Your task to perform on an android device: change the clock display to digital Image 0: 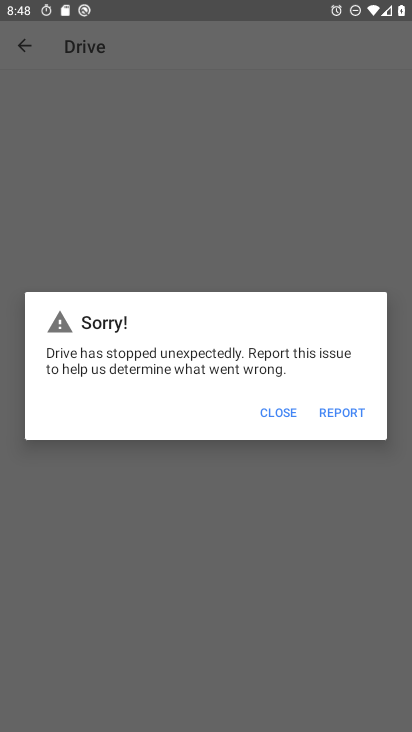
Step 0: press home button
Your task to perform on an android device: change the clock display to digital Image 1: 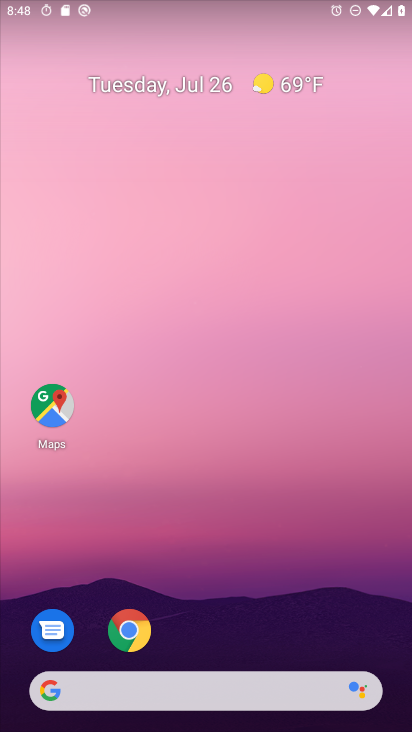
Step 1: drag from (287, 624) to (279, 192)
Your task to perform on an android device: change the clock display to digital Image 2: 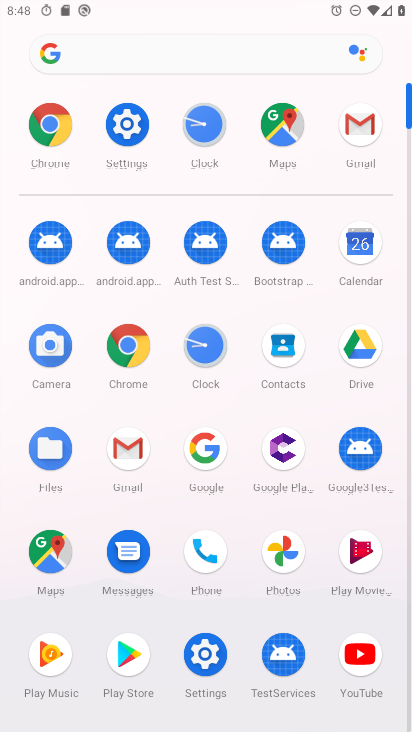
Step 2: click (219, 363)
Your task to perform on an android device: change the clock display to digital Image 3: 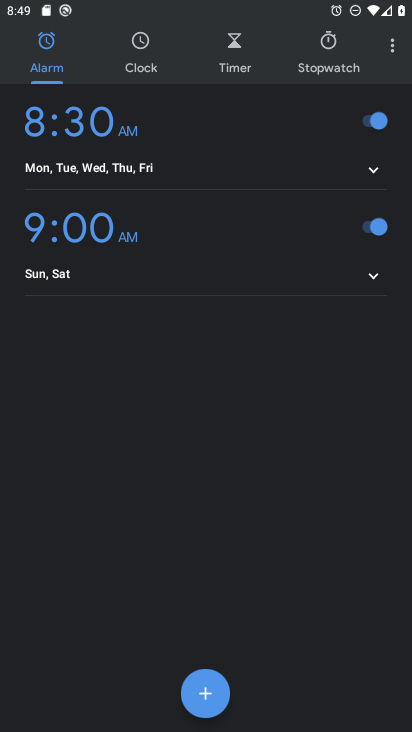
Step 3: click (391, 47)
Your task to perform on an android device: change the clock display to digital Image 4: 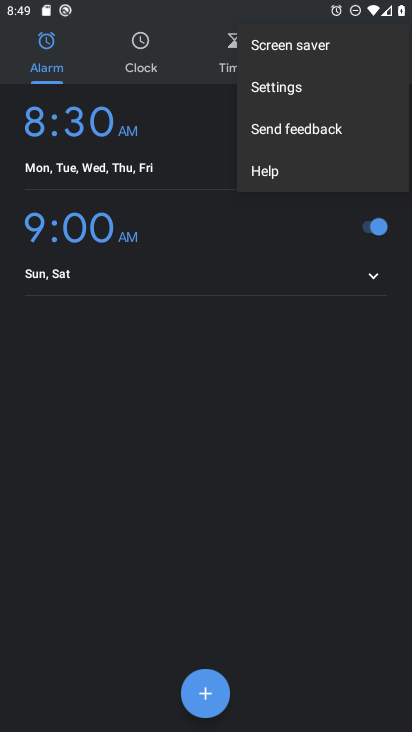
Step 4: click (286, 95)
Your task to perform on an android device: change the clock display to digital Image 5: 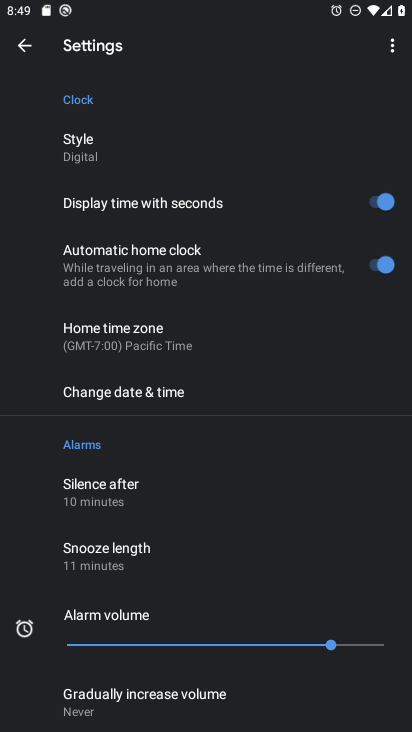
Step 5: task complete